Your task to perform on an android device: toggle airplane mode Image 0: 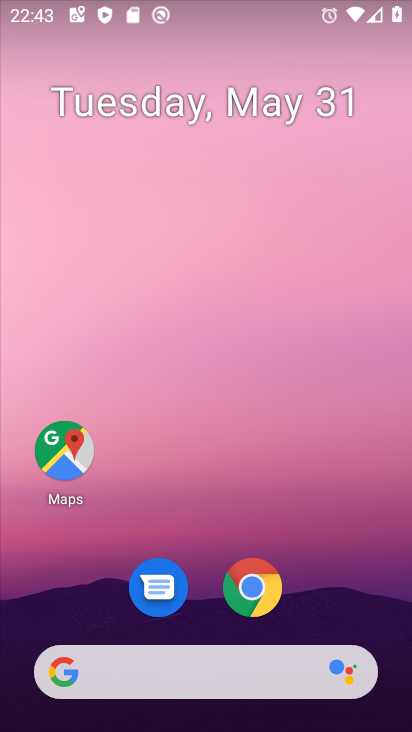
Step 0: drag from (370, 590) to (341, 169)
Your task to perform on an android device: toggle airplane mode Image 1: 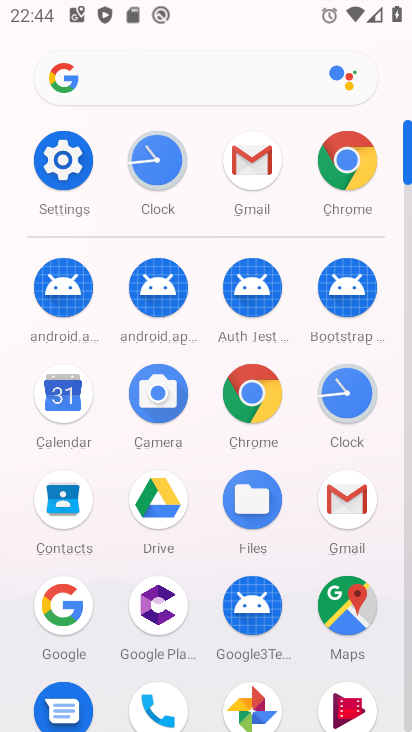
Step 1: click (53, 145)
Your task to perform on an android device: toggle airplane mode Image 2: 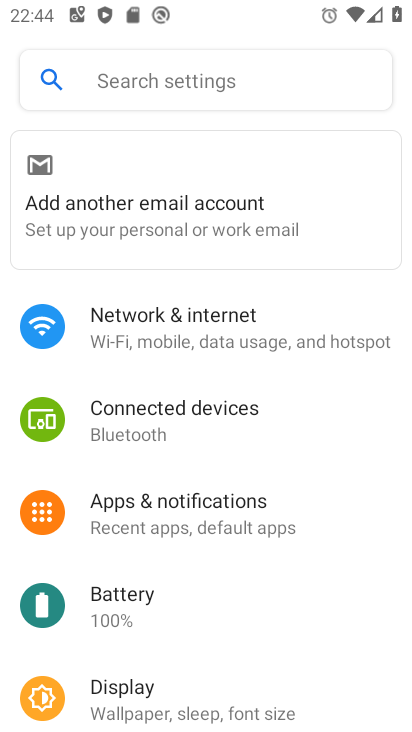
Step 2: click (293, 340)
Your task to perform on an android device: toggle airplane mode Image 3: 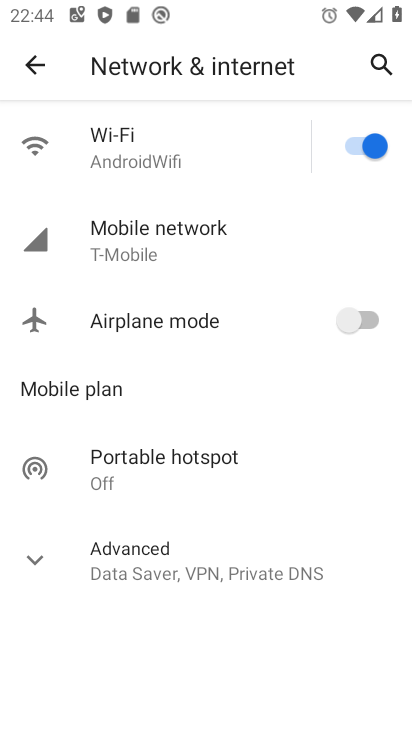
Step 3: click (344, 325)
Your task to perform on an android device: toggle airplane mode Image 4: 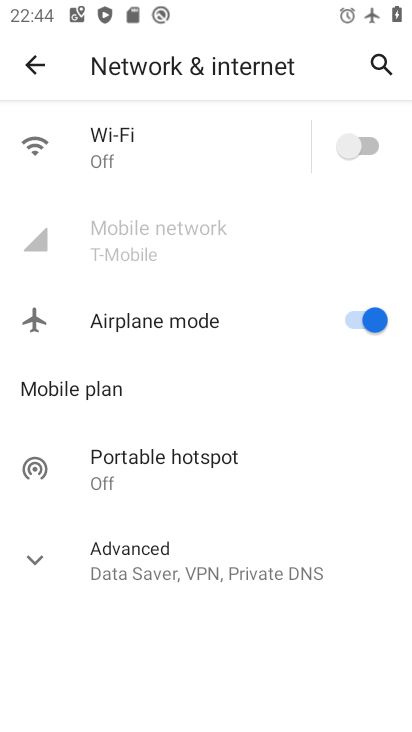
Step 4: task complete